Your task to perform on an android device: Go to sound settings Image 0: 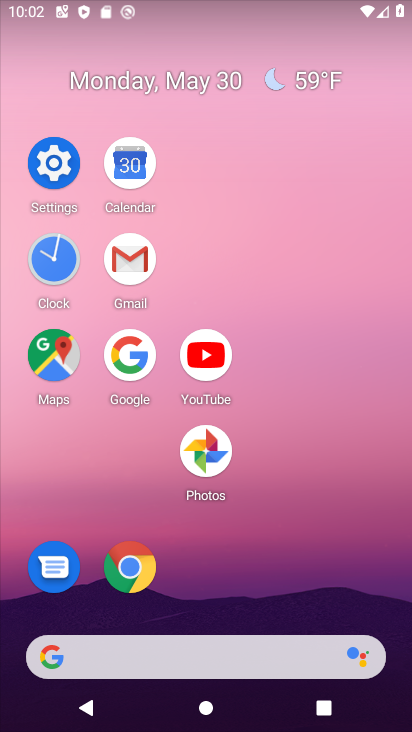
Step 0: click (68, 152)
Your task to perform on an android device: Go to sound settings Image 1: 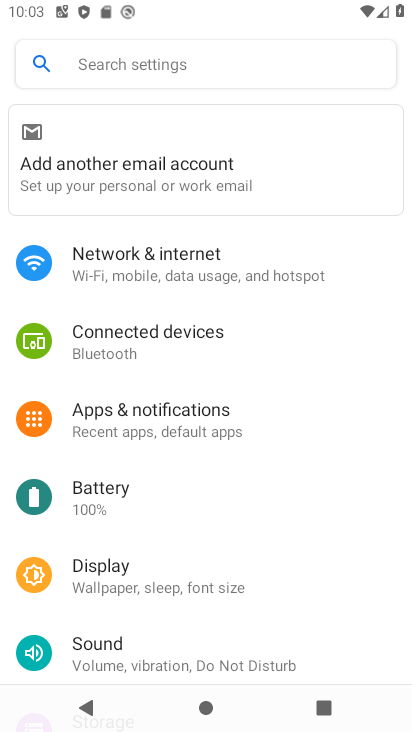
Step 1: click (138, 658)
Your task to perform on an android device: Go to sound settings Image 2: 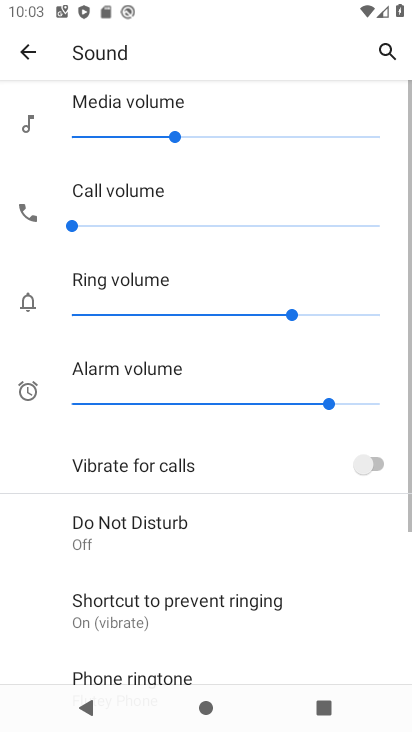
Step 2: task complete